Your task to perform on an android device: open sync settings in chrome Image 0: 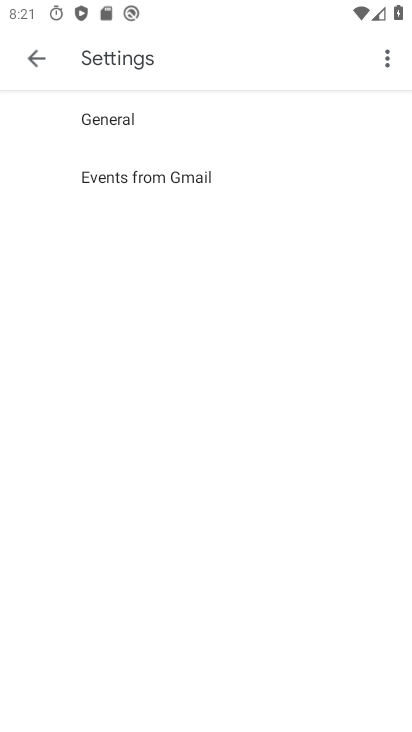
Step 0: press back button
Your task to perform on an android device: open sync settings in chrome Image 1: 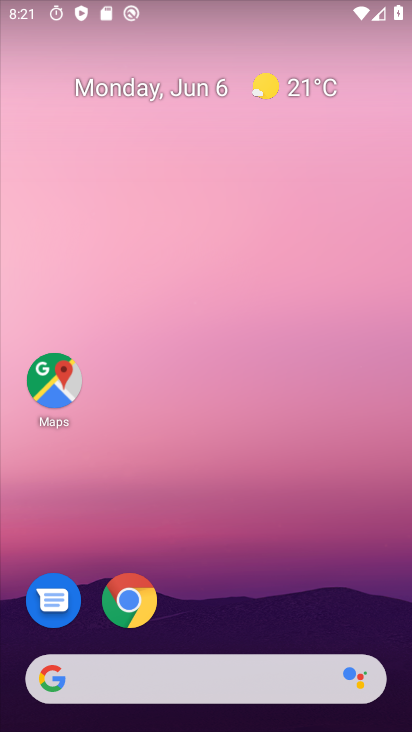
Step 1: drag from (253, 538) to (171, 10)
Your task to perform on an android device: open sync settings in chrome Image 2: 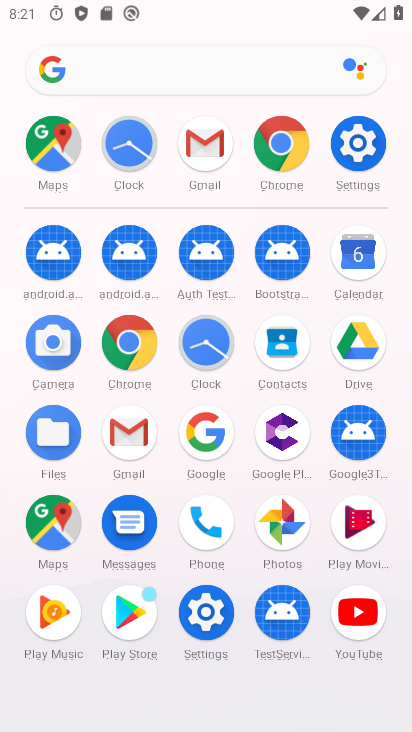
Step 2: click (128, 341)
Your task to perform on an android device: open sync settings in chrome Image 3: 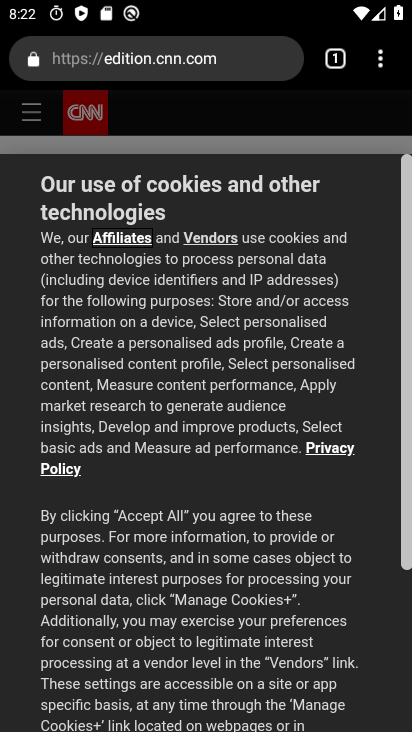
Step 3: drag from (374, 57) to (211, 630)
Your task to perform on an android device: open sync settings in chrome Image 4: 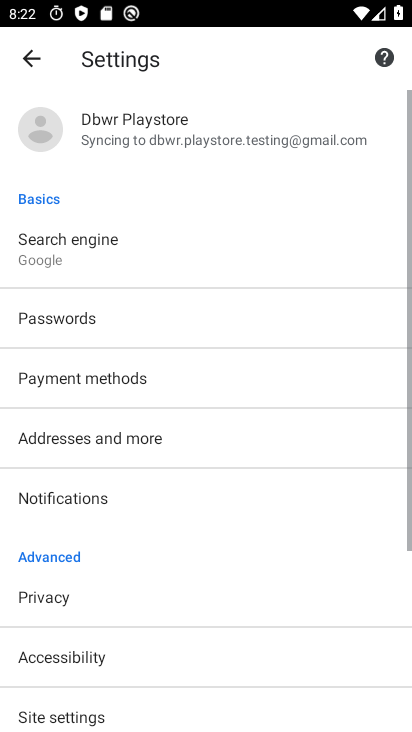
Step 4: click (124, 116)
Your task to perform on an android device: open sync settings in chrome Image 5: 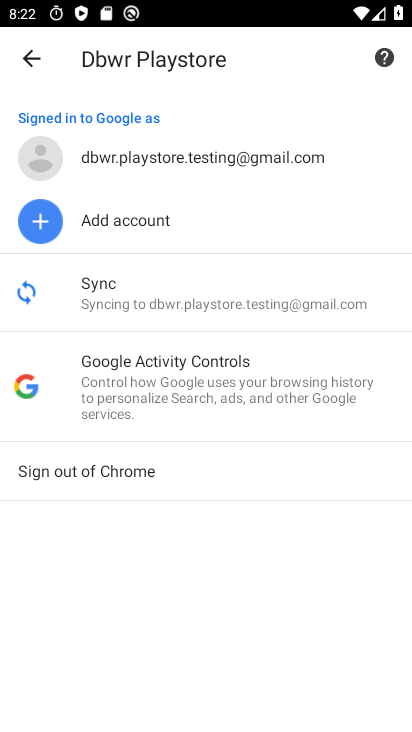
Step 5: click (177, 301)
Your task to perform on an android device: open sync settings in chrome Image 6: 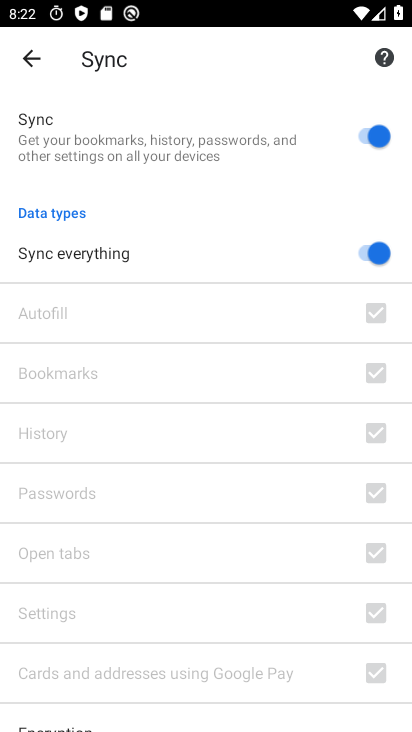
Step 6: task complete